Your task to perform on an android device: toggle sleep mode Image 0: 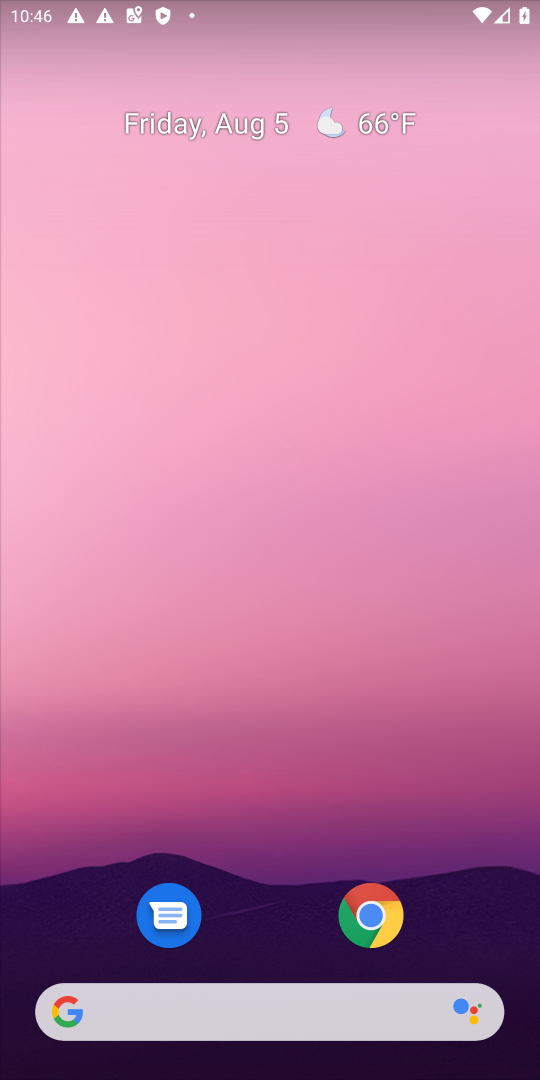
Step 0: drag from (268, 874) to (248, 131)
Your task to perform on an android device: toggle sleep mode Image 1: 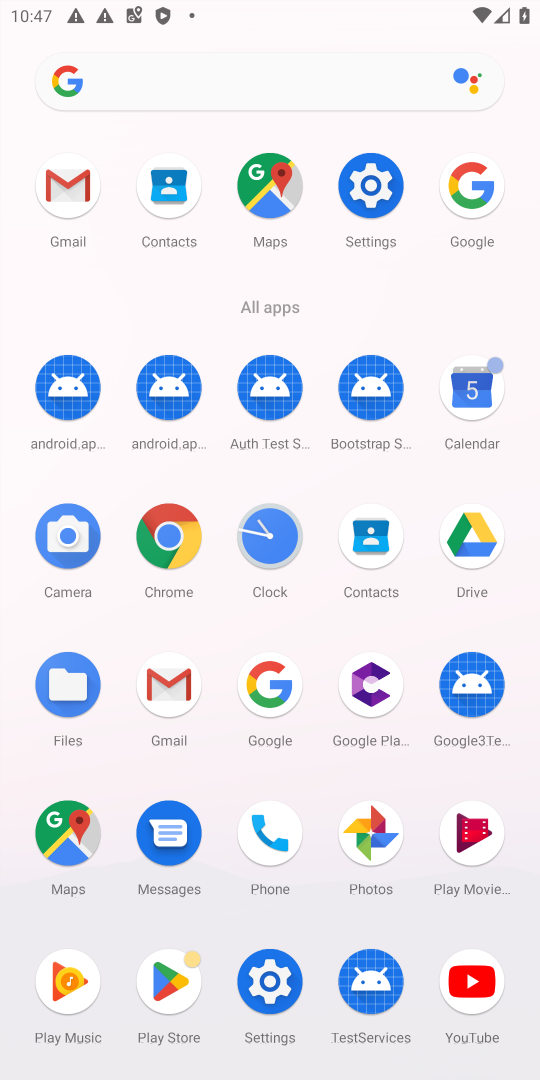
Step 1: click (386, 201)
Your task to perform on an android device: toggle sleep mode Image 2: 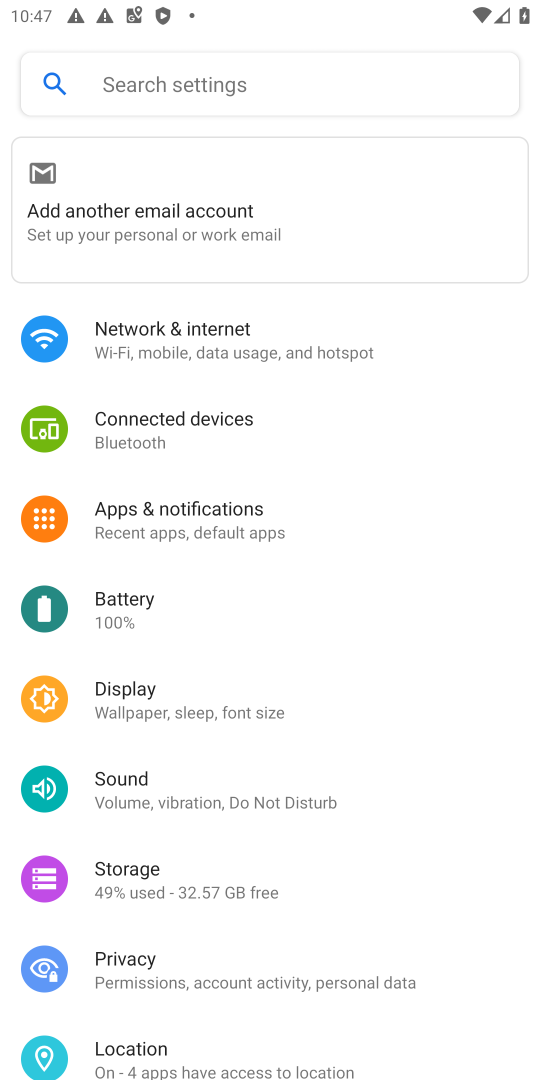
Step 2: drag from (175, 650) to (164, 708)
Your task to perform on an android device: toggle sleep mode Image 3: 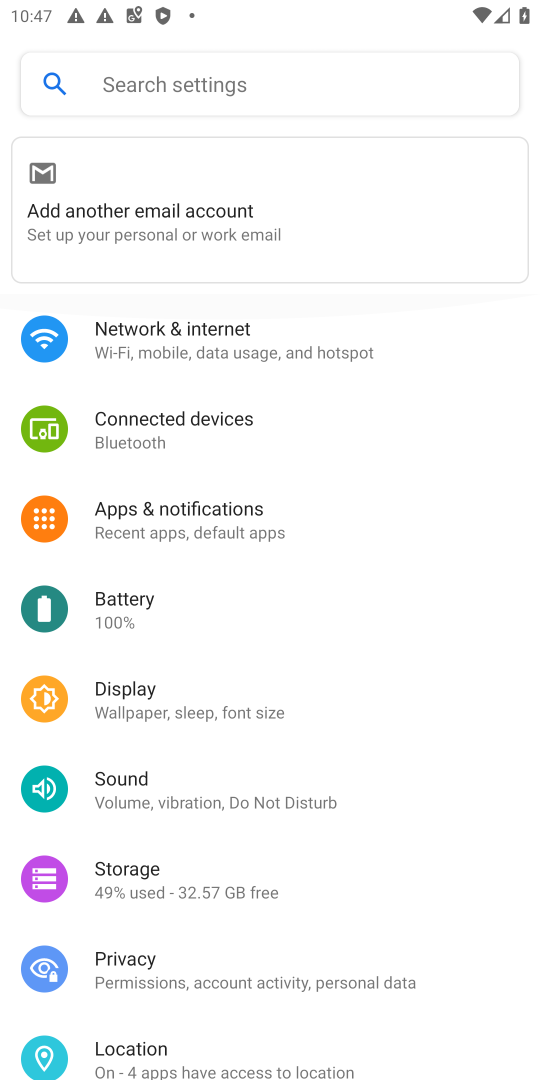
Step 3: click (155, 702)
Your task to perform on an android device: toggle sleep mode Image 4: 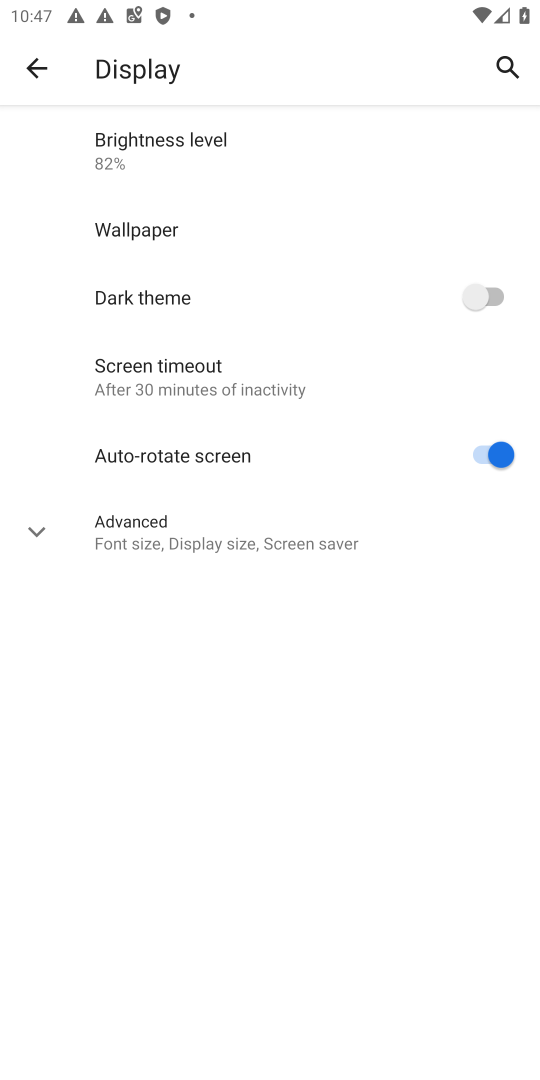
Step 4: task complete